Your task to perform on an android device: Open calendar and show me the first week of next month Image 0: 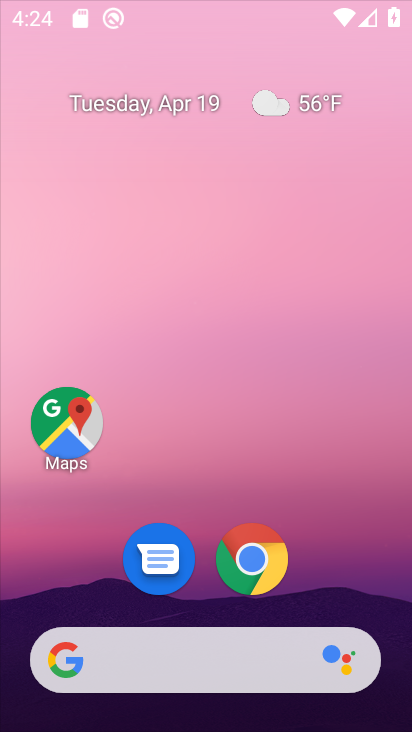
Step 0: drag from (360, 475) to (333, 263)
Your task to perform on an android device: Open calendar and show me the first week of next month Image 1: 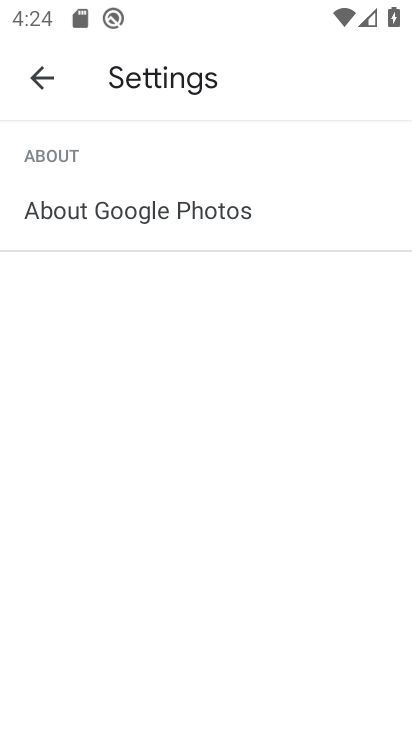
Step 1: press back button
Your task to perform on an android device: Open calendar and show me the first week of next month Image 2: 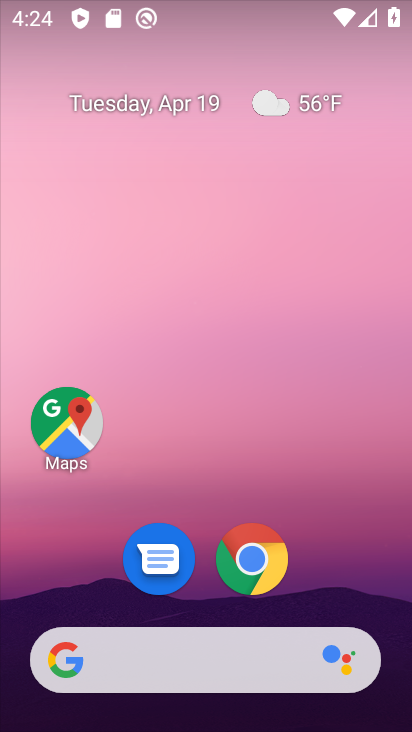
Step 2: drag from (357, 561) to (370, 299)
Your task to perform on an android device: Open calendar and show me the first week of next month Image 3: 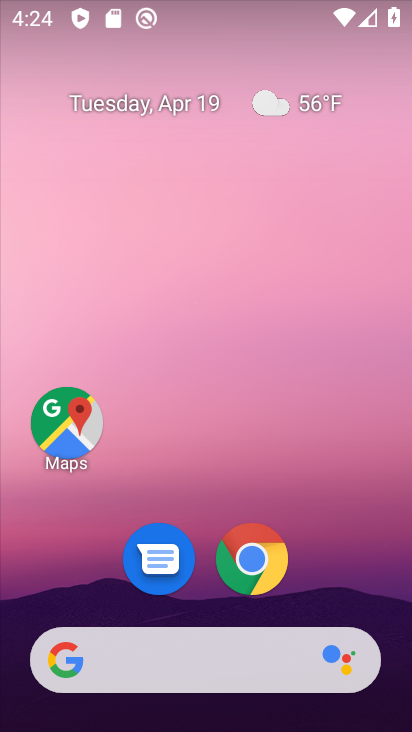
Step 3: drag from (377, 597) to (375, 300)
Your task to perform on an android device: Open calendar and show me the first week of next month Image 4: 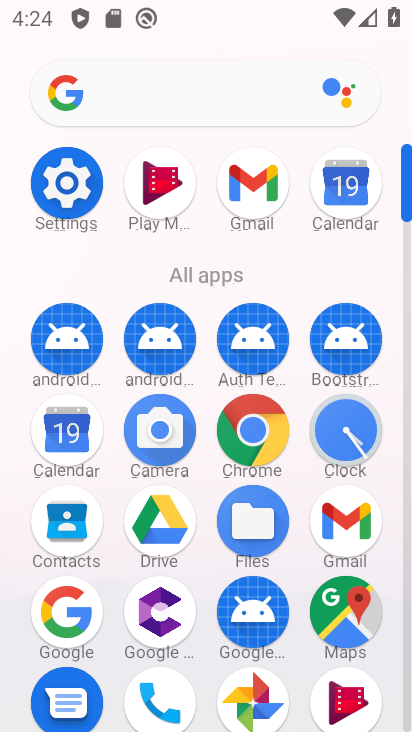
Step 4: click (57, 430)
Your task to perform on an android device: Open calendar and show me the first week of next month Image 5: 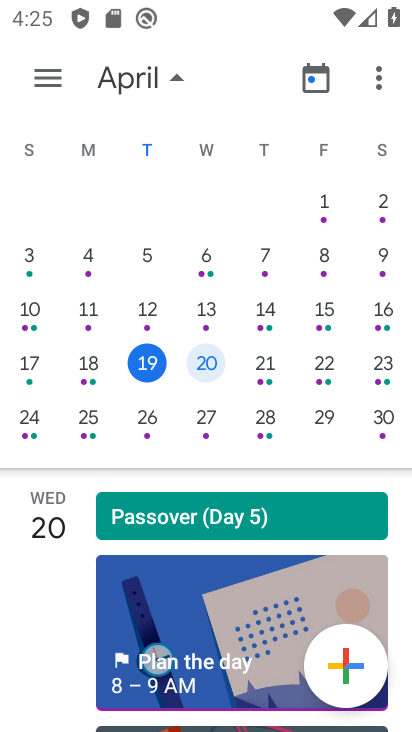
Step 5: drag from (395, 279) to (44, 221)
Your task to perform on an android device: Open calendar and show me the first week of next month Image 6: 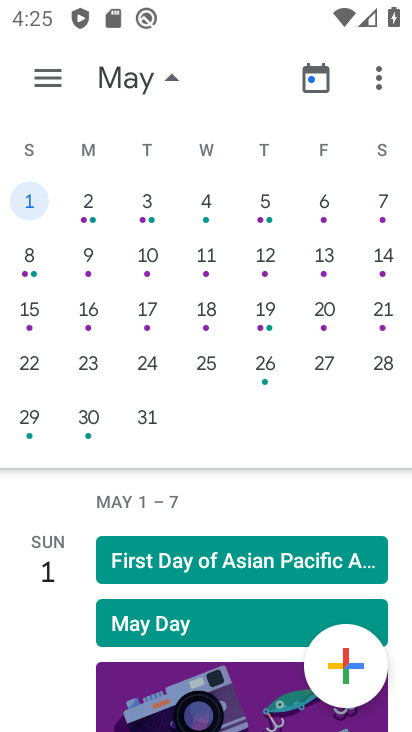
Step 6: click (205, 194)
Your task to perform on an android device: Open calendar and show me the first week of next month Image 7: 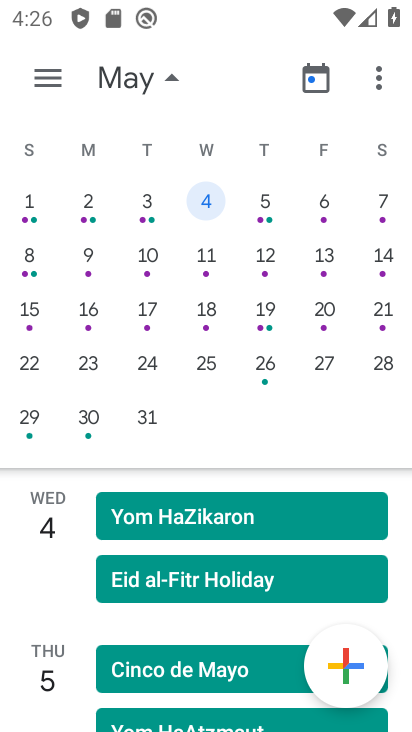
Step 7: task complete